Your task to perform on an android device: Toggle notifications for the Google Photos app Image 0: 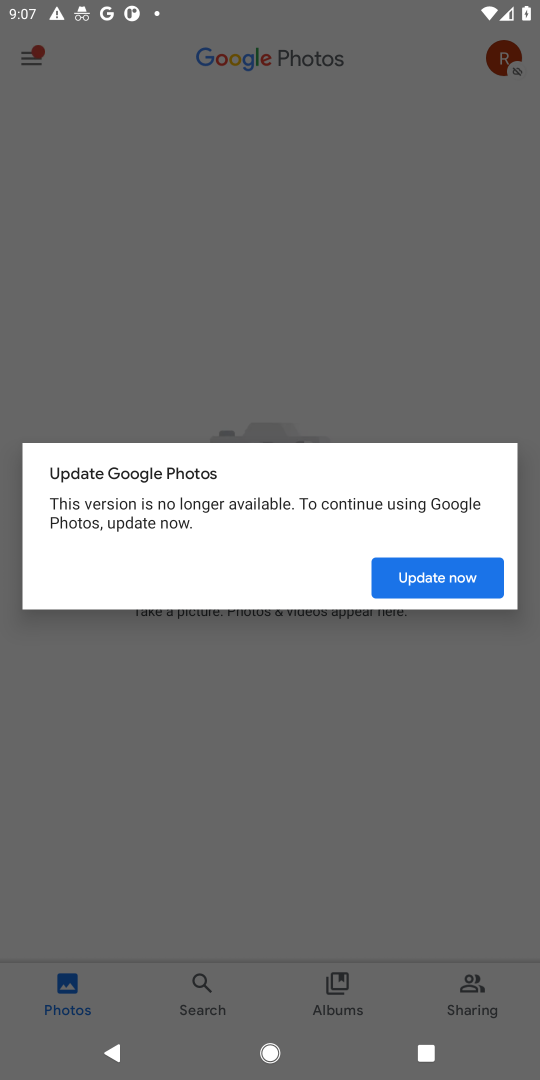
Step 0: press home button
Your task to perform on an android device: Toggle notifications for the Google Photos app Image 1: 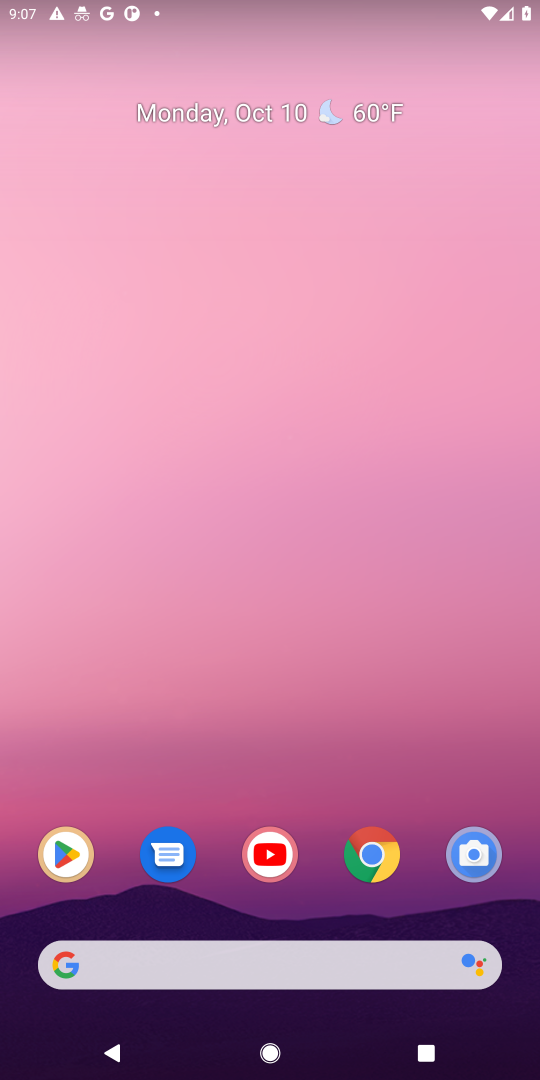
Step 1: drag from (260, 954) to (426, 239)
Your task to perform on an android device: Toggle notifications for the Google Photos app Image 2: 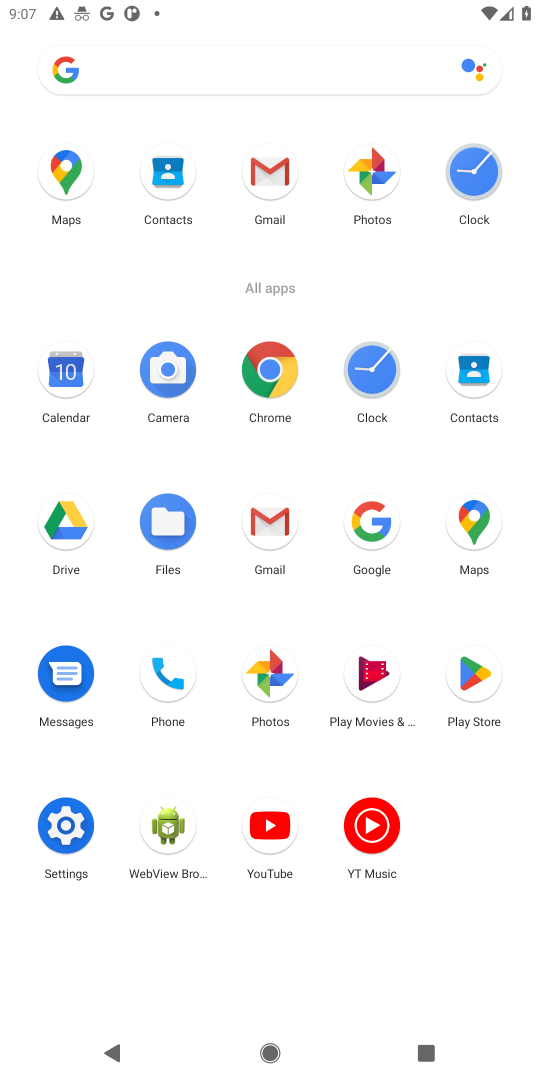
Step 2: click (270, 677)
Your task to perform on an android device: Toggle notifications for the Google Photos app Image 3: 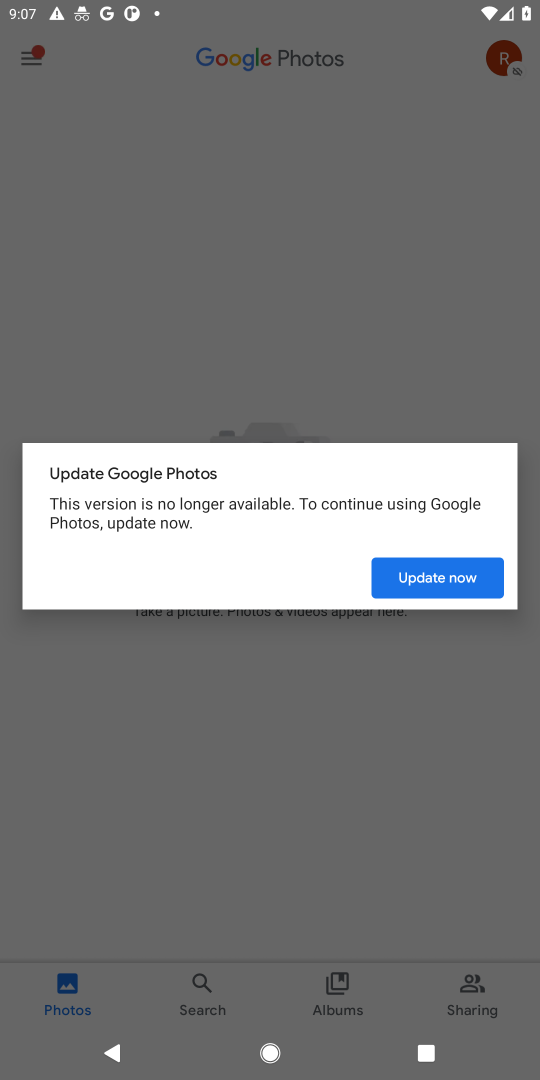
Step 3: click (436, 578)
Your task to perform on an android device: Toggle notifications for the Google Photos app Image 4: 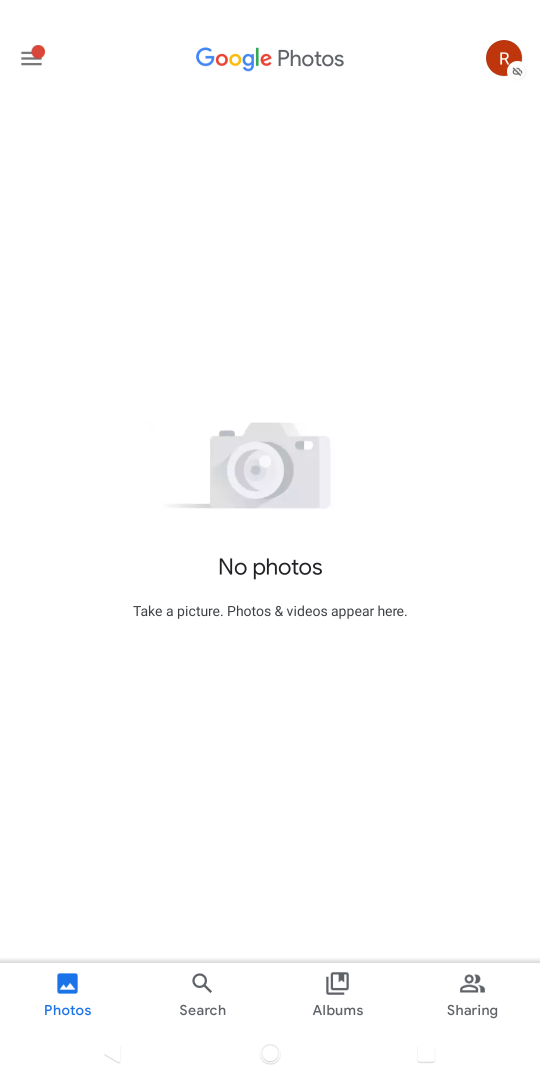
Step 4: click (32, 52)
Your task to perform on an android device: Toggle notifications for the Google Photos app Image 5: 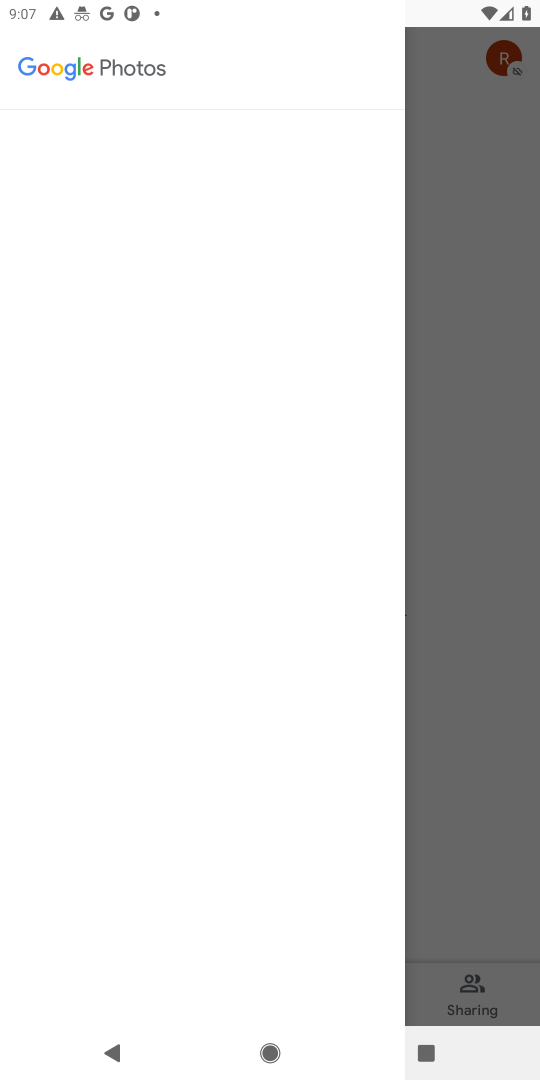
Step 5: click (466, 365)
Your task to perform on an android device: Toggle notifications for the Google Photos app Image 6: 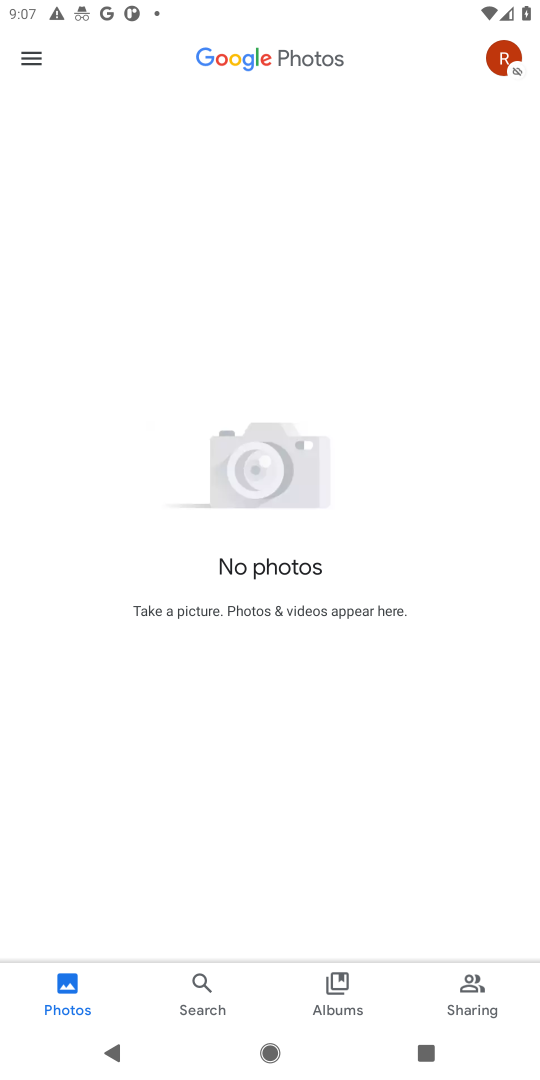
Step 6: click (27, 59)
Your task to perform on an android device: Toggle notifications for the Google Photos app Image 7: 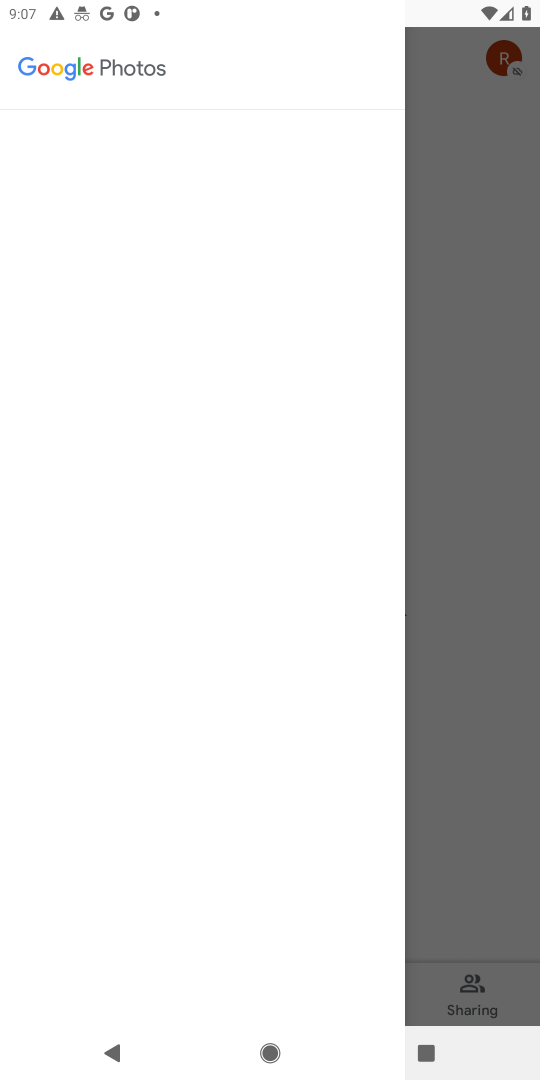
Step 7: task complete